Your task to perform on an android device: Open accessibility settings Image 0: 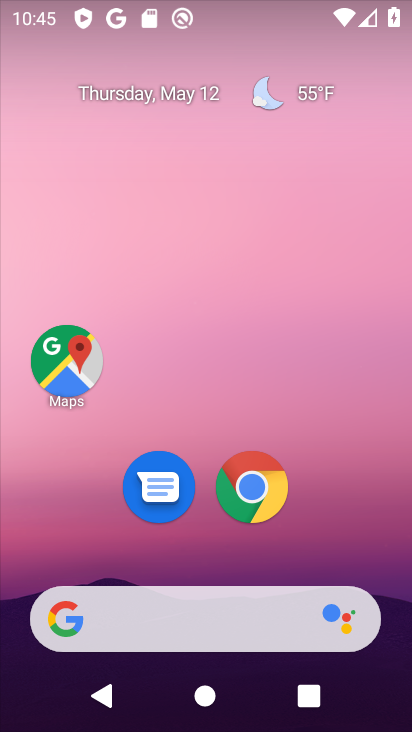
Step 0: drag from (374, 541) to (346, 0)
Your task to perform on an android device: Open accessibility settings Image 1: 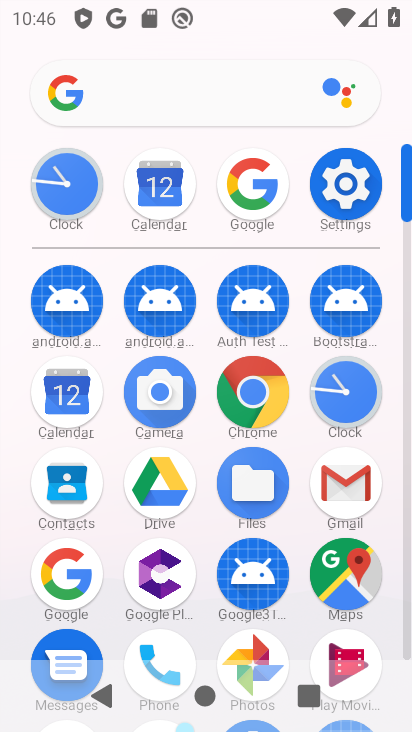
Step 1: click (342, 189)
Your task to perform on an android device: Open accessibility settings Image 2: 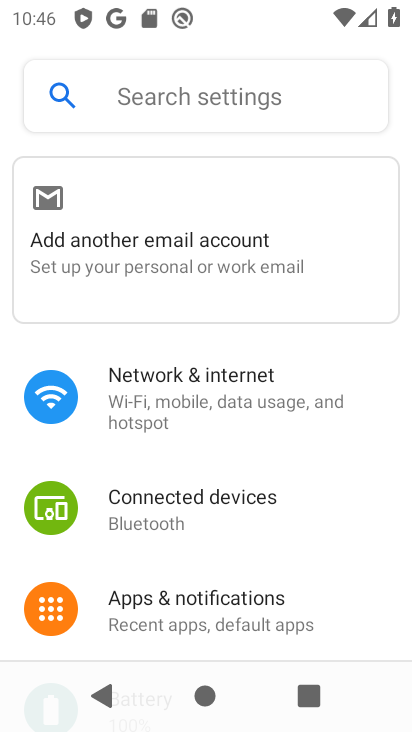
Step 2: drag from (334, 593) to (331, 46)
Your task to perform on an android device: Open accessibility settings Image 3: 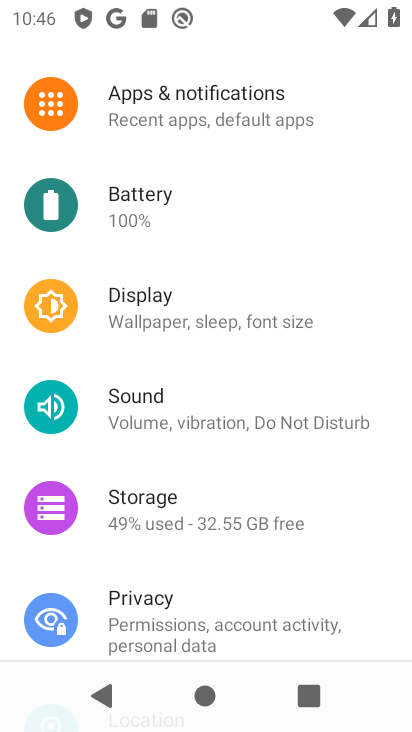
Step 3: drag from (284, 546) to (290, 0)
Your task to perform on an android device: Open accessibility settings Image 4: 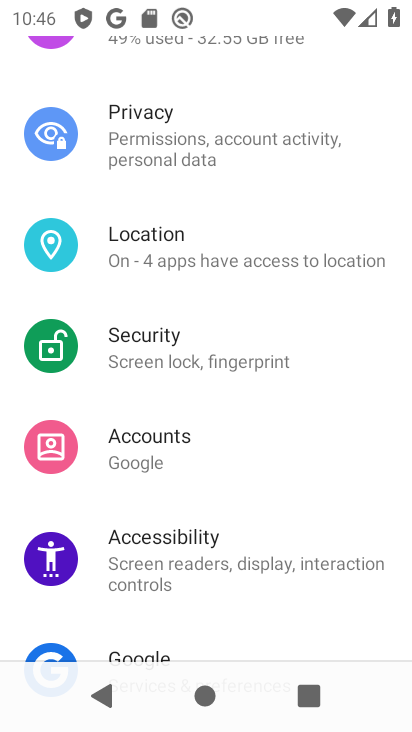
Step 4: click (179, 560)
Your task to perform on an android device: Open accessibility settings Image 5: 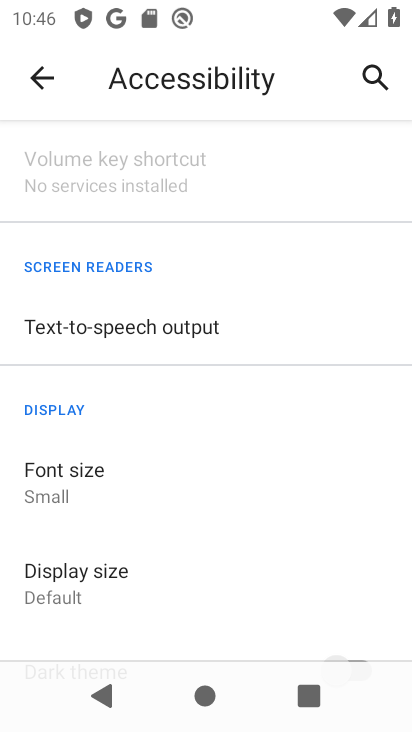
Step 5: task complete